Your task to perform on an android device: change your default location settings in chrome Image 0: 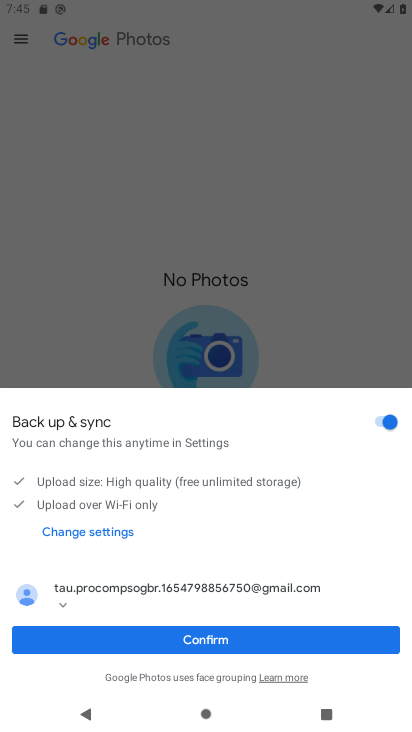
Step 0: press home button
Your task to perform on an android device: change your default location settings in chrome Image 1: 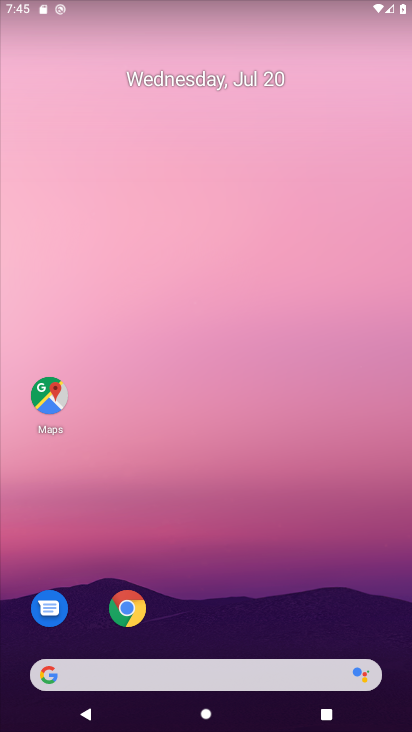
Step 1: drag from (272, 591) to (277, 175)
Your task to perform on an android device: change your default location settings in chrome Image 2: 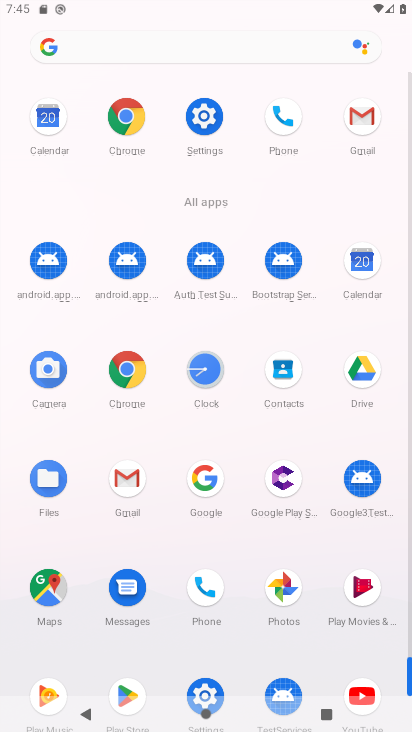
Step 2: click (125, 112)
Your task to perform on an android device: change your default location settings in chrome Image 3: 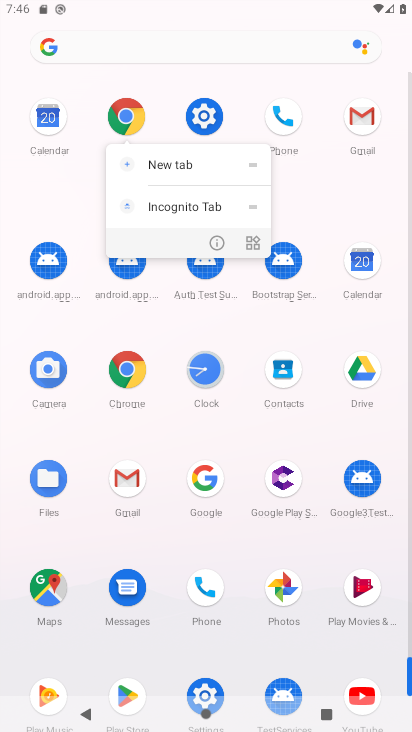
Step 3: click (135, 122)
Your task to perform on an android device: change your default location settings in chrome Image 4: 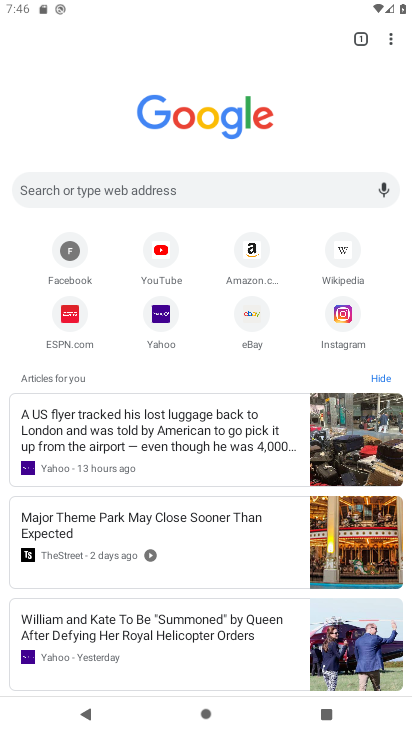
Step 4: click (394, 36)
Your task to perform on an android device: change your default location settings in chrome Image 5: 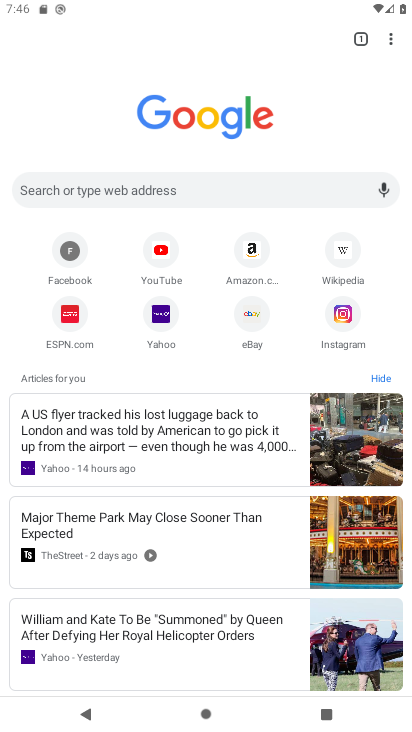
Step 5: click (393, 33)
Your task to perform on an android device: change your default location settings in chrome Image 6: 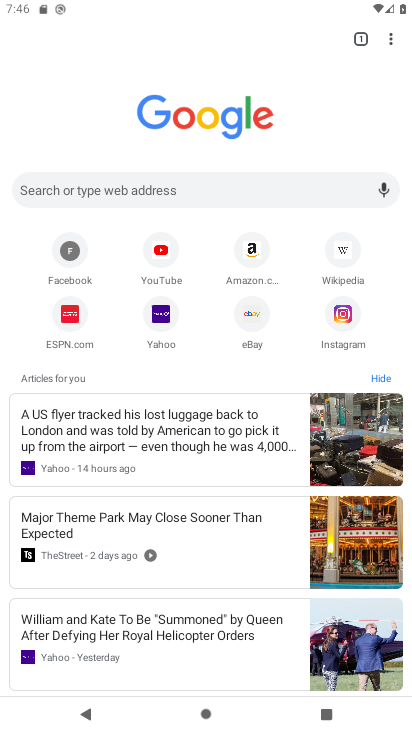
Step 6: click (393, 33)
Your task to perform on an android device: change your default location settings in chrome Image 7: 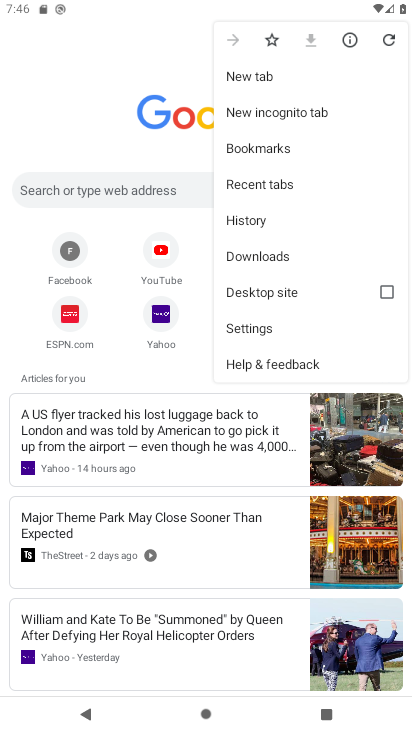
Step 7: click (270, 324)
Your task to perform on an android device: change your default location settings in chrome Image 8: 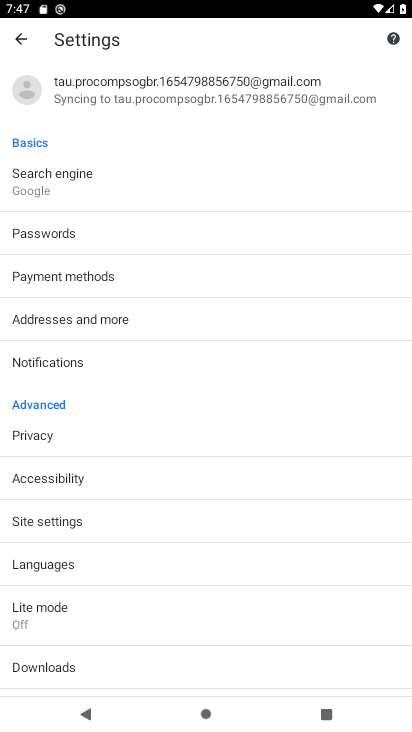
Step 8: task complete